Your task to perform on an android device: empty trash in the gmail app Image 0: 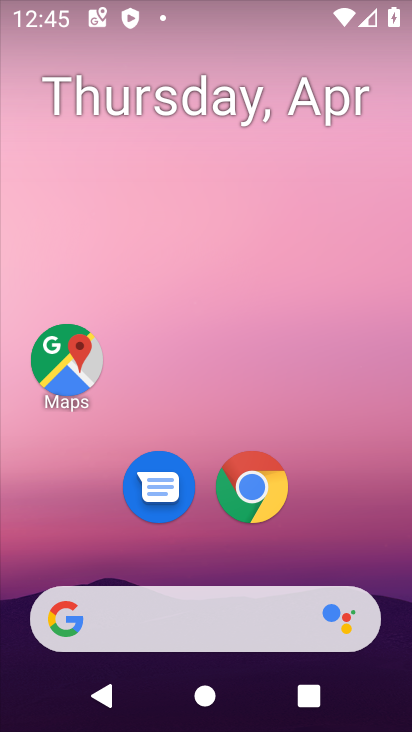
Step 0: drag from (311, 530) to (304, 42)
Your task to perform on an android device: empty trash in the gmail app Image 1: 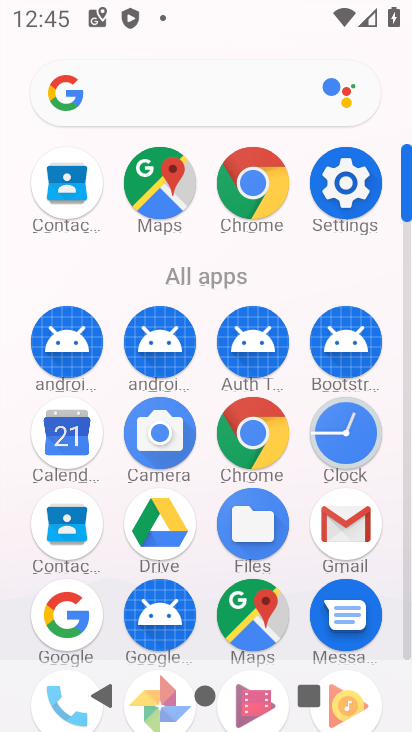
Step 1: click (340, 516)
Your task to perform on an android device: empty trash in the gmail app Image 2: 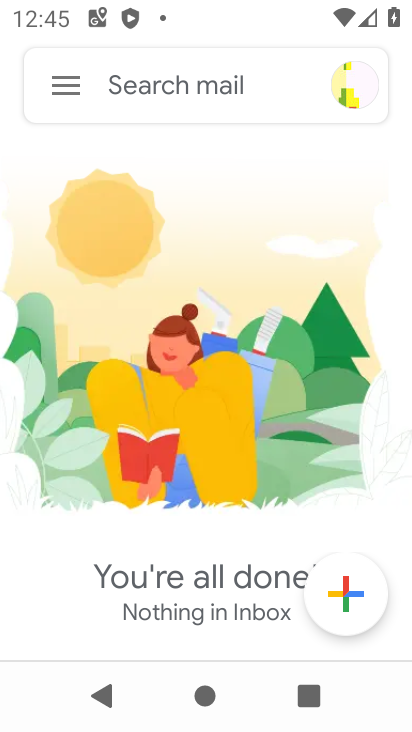
Step 2: click (53, 98)
Your task to perform on an android device: empty trash in the gmail app Image 3: 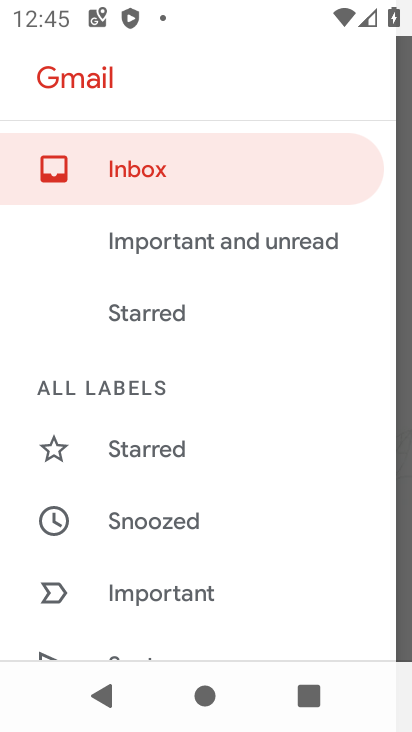
Step 3: drag from (135, 354) to (137, 269)
Your task to perform on an android device: empty trash in the gmail app Image 4: 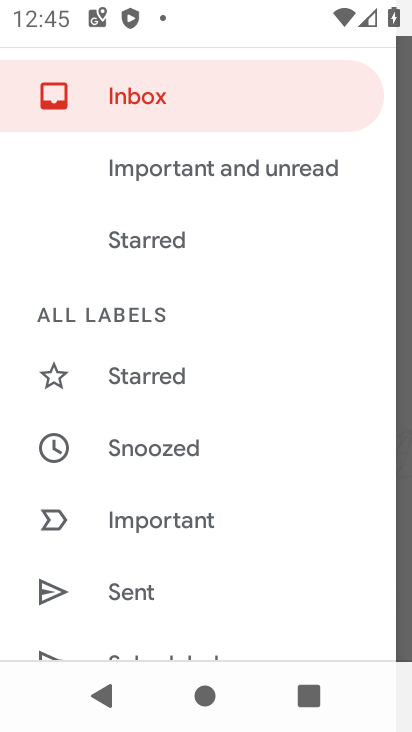
Step 4: drag from (151, 480) to (176, 366)
Your task to perform on an android device: empty trash in the gmail app Image 5: 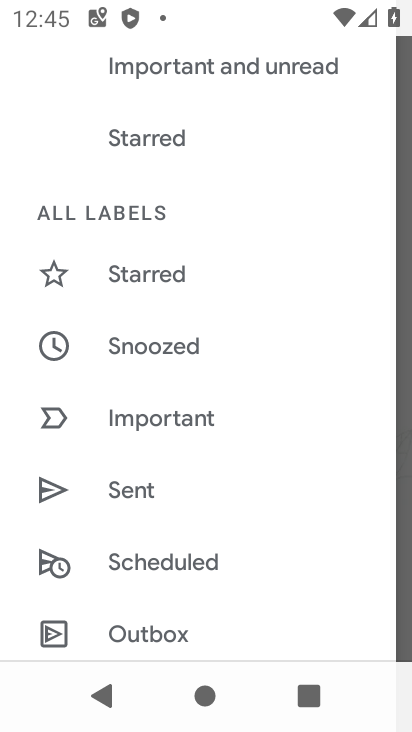
Step 5: drag from (199, 491) to (197, 403)
Your task to perform on an android device: empty trash in the gmail app Image 6: 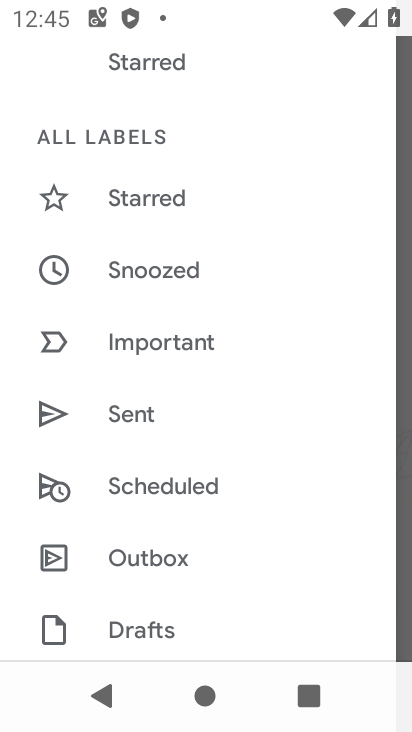
Step 6: drag from (203, 525) to (205, 428)
Your task to perform on an android device: empty trash in the gmail app Image 7: 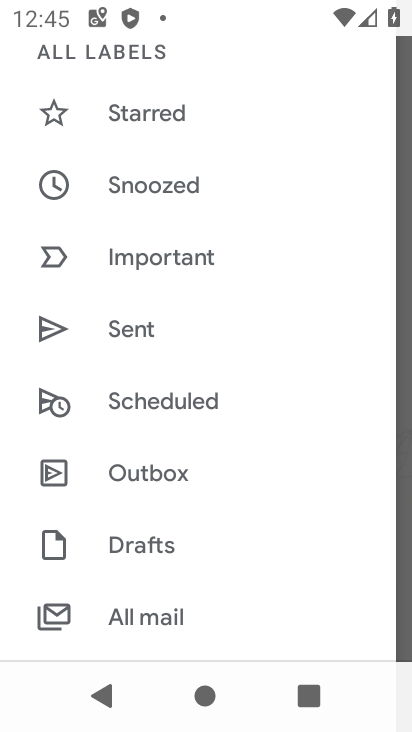
Step 7: drag from (213, 509) to (209, 443)
Your task to perform on an android device: empty trash in the gmail app Image 8: 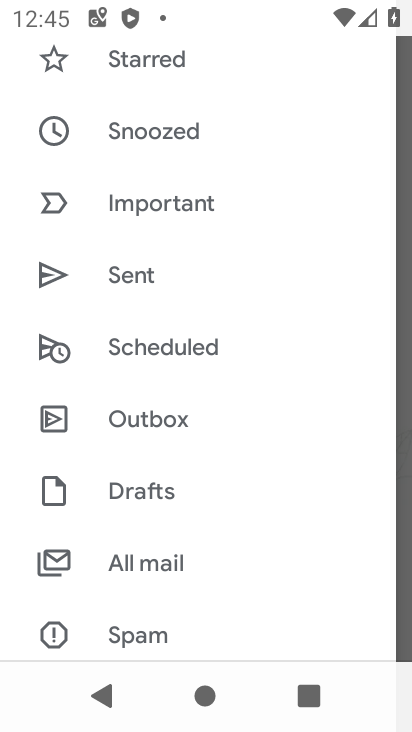
Step 8: drag from (213, 509) to (213, 443)
Your task to perform on an android device: empty trash in the gmail app Image 9: 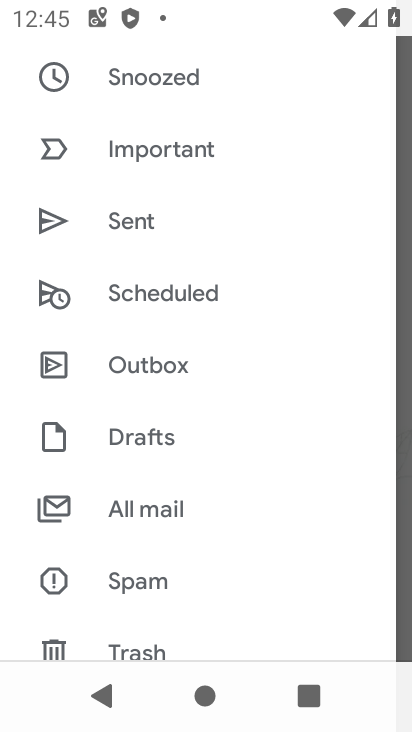
Step 9: drag from (213, 488) to (212, 405)
Your task to perform on an android device: empty trash in the gmail app Image 10: 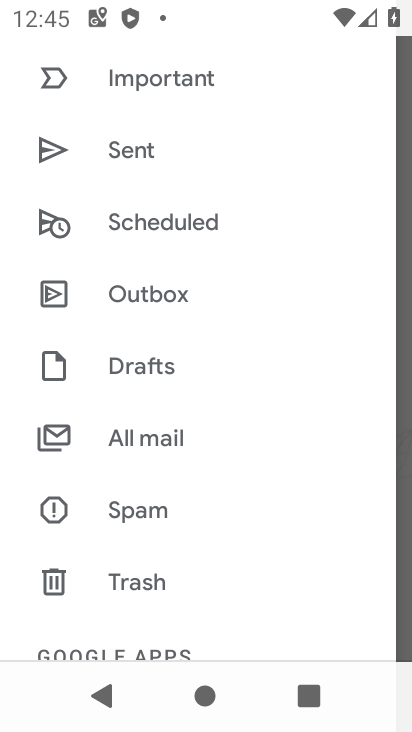
Step 10: click (162, 575)
Your task to perform on an android device: empty trash in the gmail app Image 11: 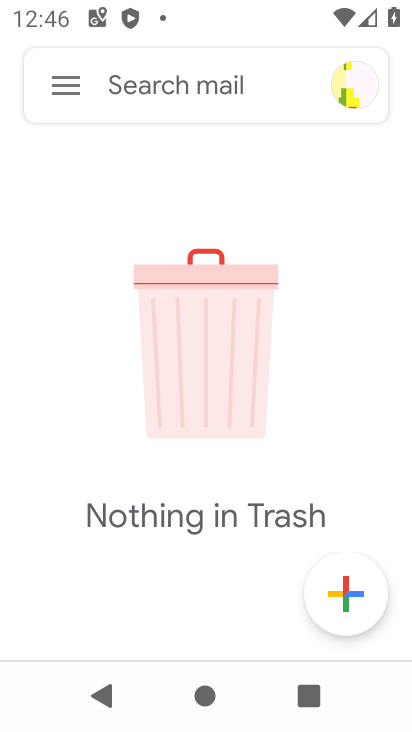
Step 11: task complete